Your task to perform on an android device: add a contact Image 0: 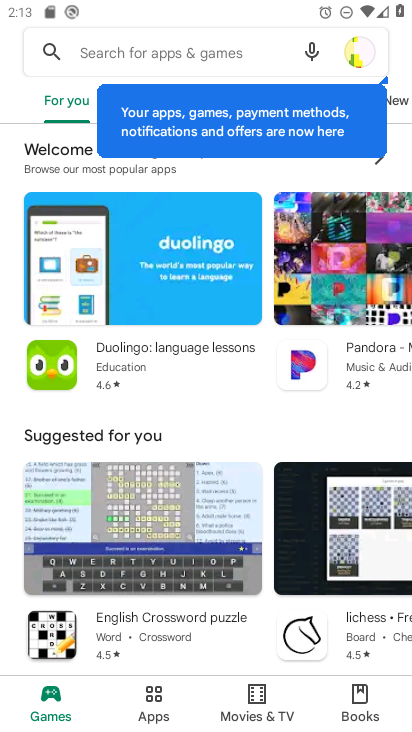
Step 0: press home button
Your task to perform on an android device: add a contact Image 1: 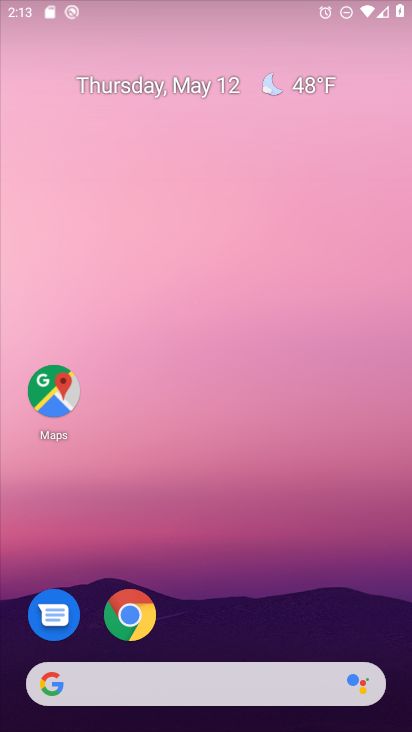
Step 1: drag from (226, 672) to (225, 0)
Your task to perform on an android device: add a contact Image 2: 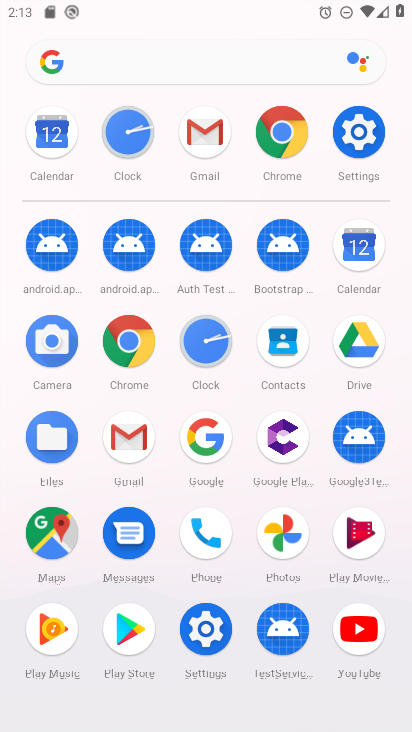
Step 2: click (281, 355)
Your task to perform on an android device: add a contact Image 3: 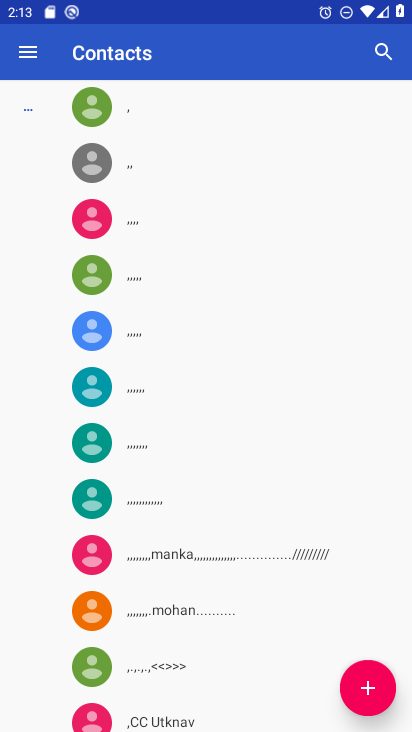
Step 3: click (363, 689)
Your task to perform on an android device: add a contact Image 4: 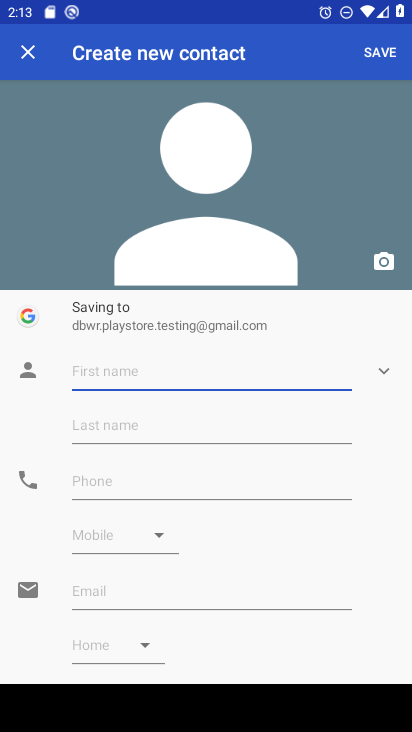
Step 4: type "uspa"
Your task to perform on an android device: add a contact Image 5: 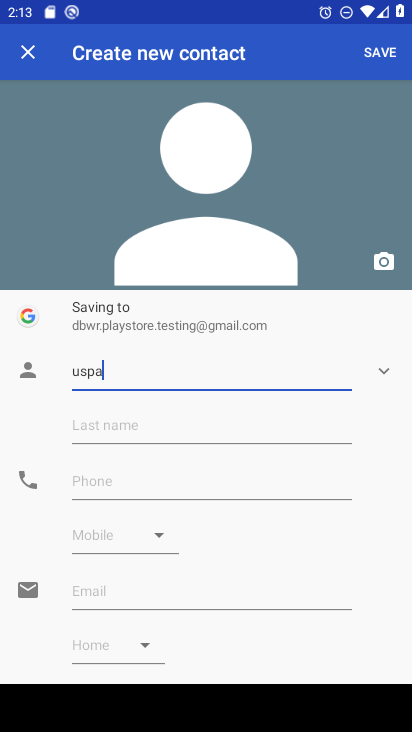
Step 5: click (95, 490)
Your task to perform on an android device: add a contact Image 6: 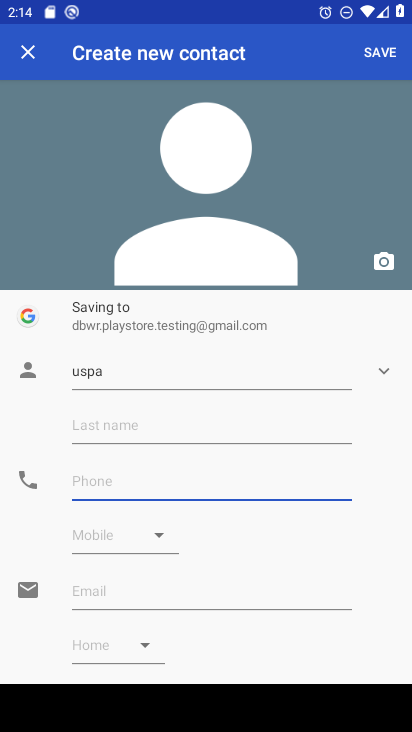
Step 6: type "989876544566"
Your task to perform on an android device: add a contact Image 7: 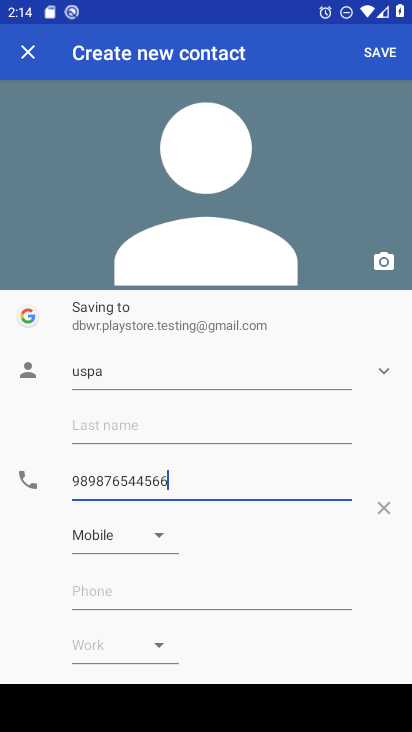
Step 7: click (370, 54)
Your task to perform on an android device: add a contact Image 8: 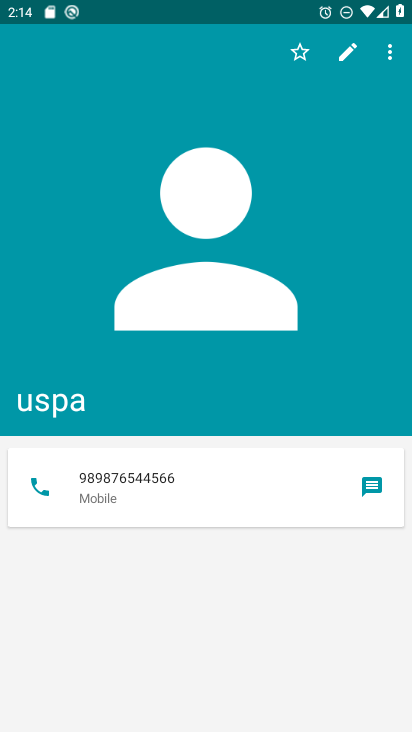
Step 8: press home button
Your task to perform on an android device: add a contact Image 9: 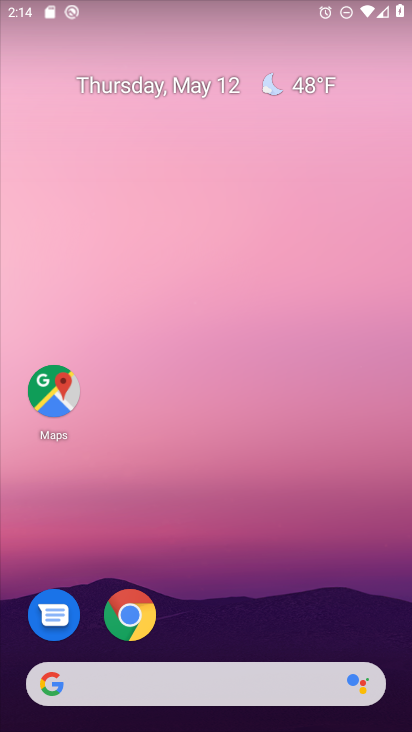
Step 9: drag from (284, 655) to (342, 6)
Your task to perform on an android device: add a contact Image 10: 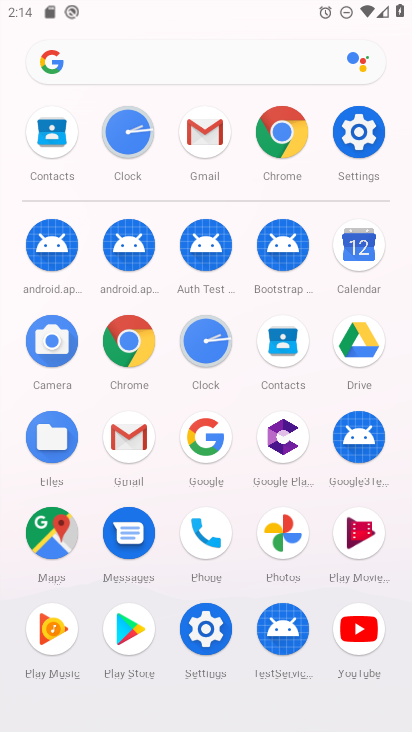
Step 10: click (290, 356)
Your task to perform on an android device: add a contact Image 11: 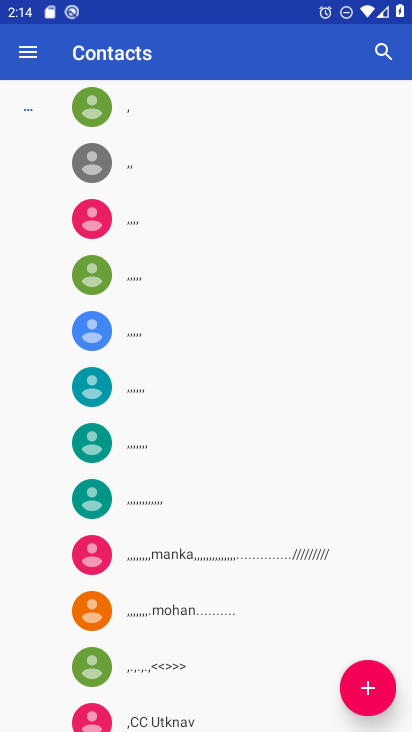
Step 11: click (380, 673)
Your task to perform on an android device: add a contact Image 12: 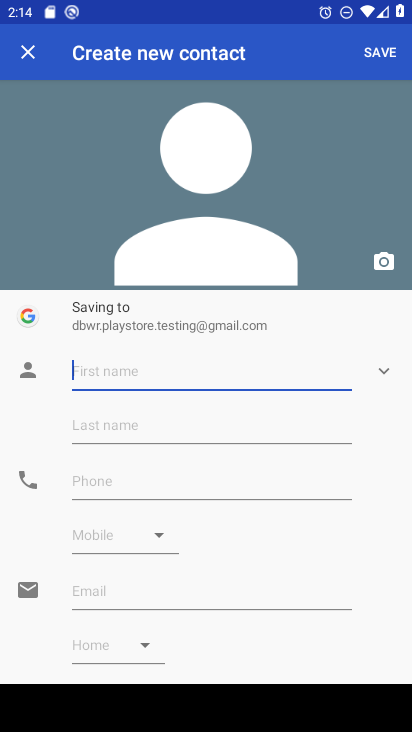
Step 12: type "hgfdertyu"
Your task to perform on an android device: add a contact Image 13: 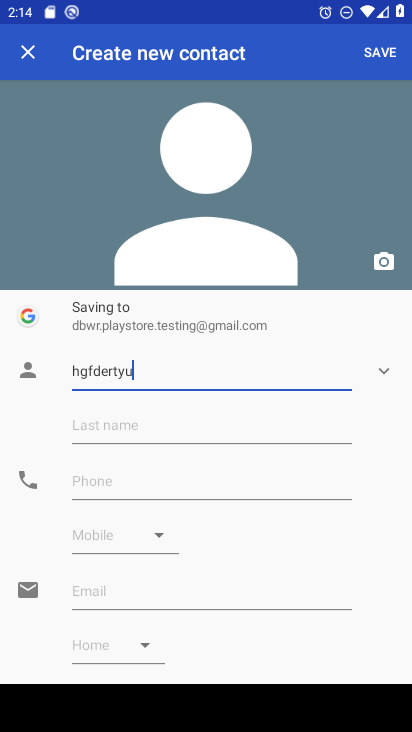
Step 13: click (210, 479)
Your task to perform on an android device: add a contact Image 14: 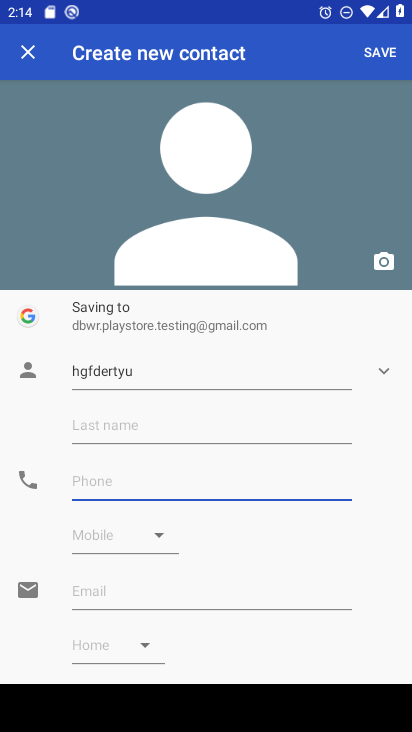
Step 14: type "9087656789"
Your task to perform on an android device: add a contact Image 15: 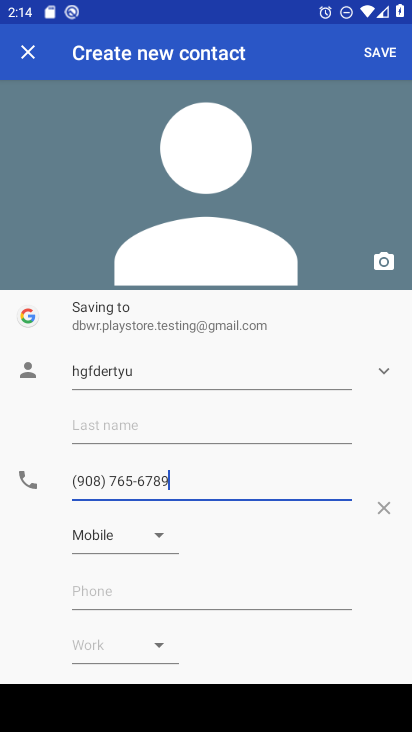
Step 15: click (381, 55)
Your task to perform on an android device: add a contact Image 16: 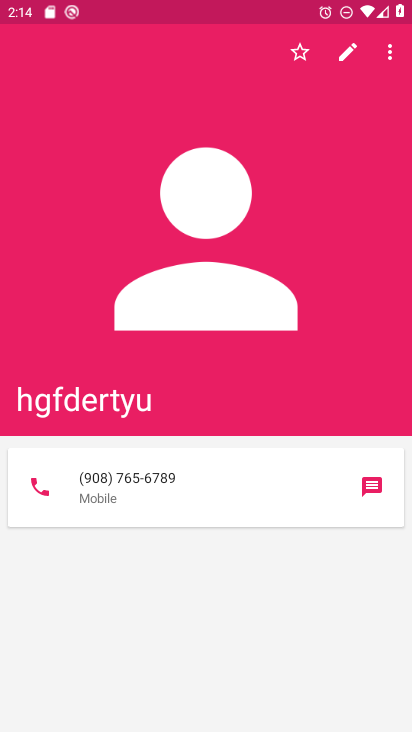
Step 16: task complete